Your task to perform on an android device: change the upload size in google photos Image 0: 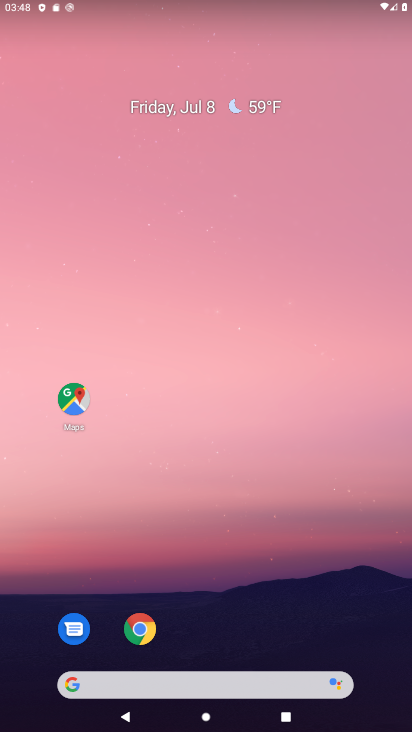
Step 0: press home button
Your task to perform on an android device: change the upload size in google photos Image 1: 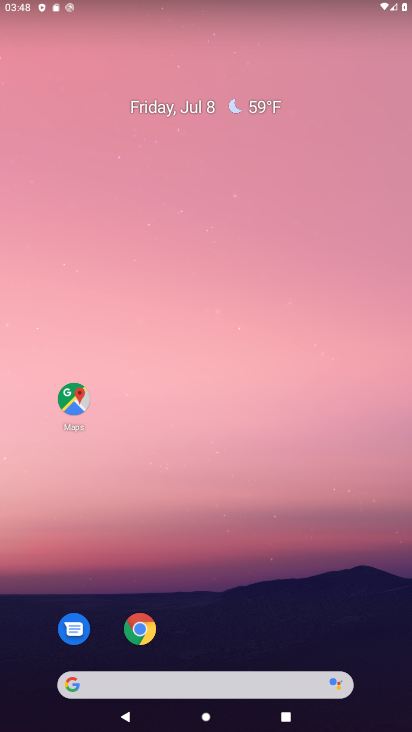
Step 1: drag from (228, 637) to (196, 312)
Your task to perform on an android device: change the upload size in google photos Image 2: 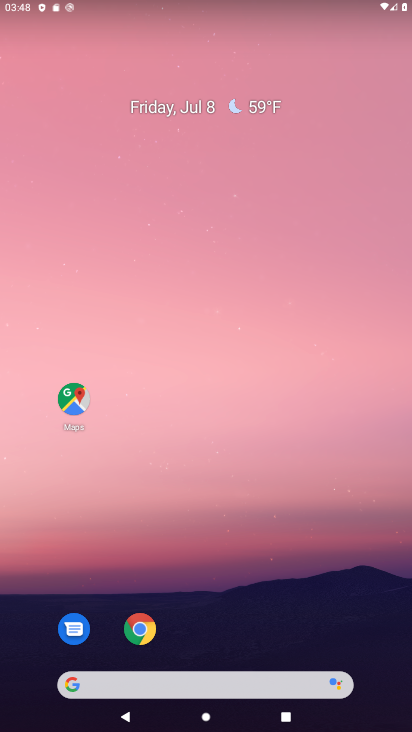
Step 2: drag from (218, 648) to (112, 16)
Your task to perform on an android device: change the upload size in google photos Image 3: 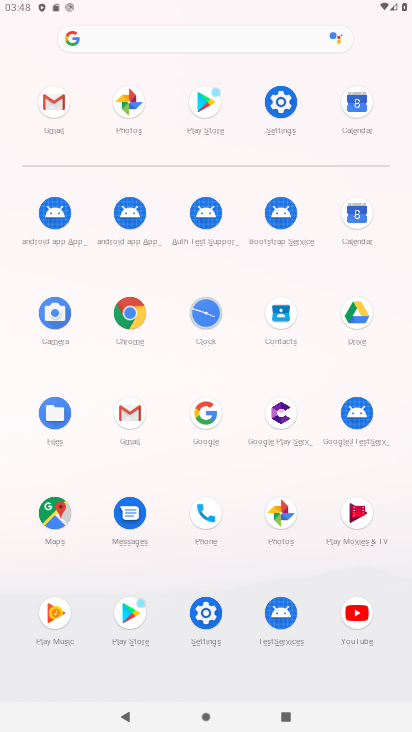
Step 3: click (278, 504)
Your task to perform on an android device: change the upload size in google photos Image 4: 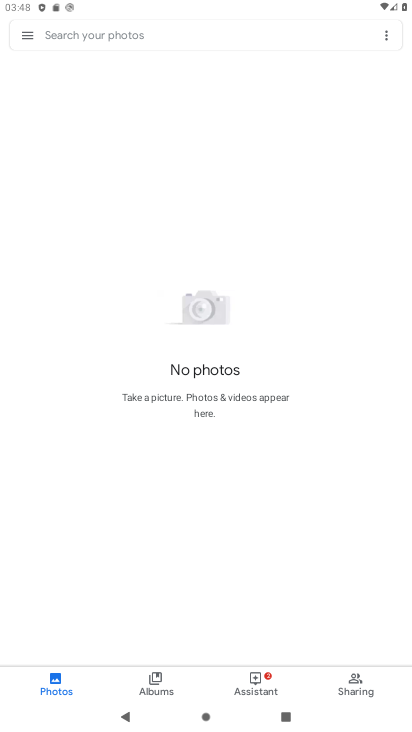
Step 4: click (32, 31)
Your task to perform on an android device: change the upload size in google photos Image 5: 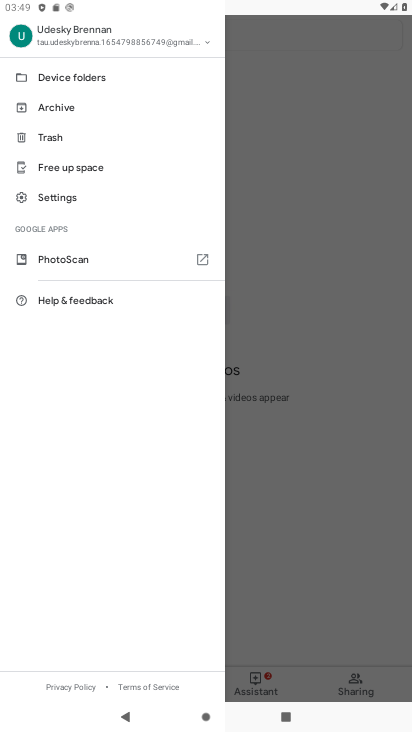
Step 5: click (65, 189)
Your task to perform on an android device: change the upload size in google photos Image 6: 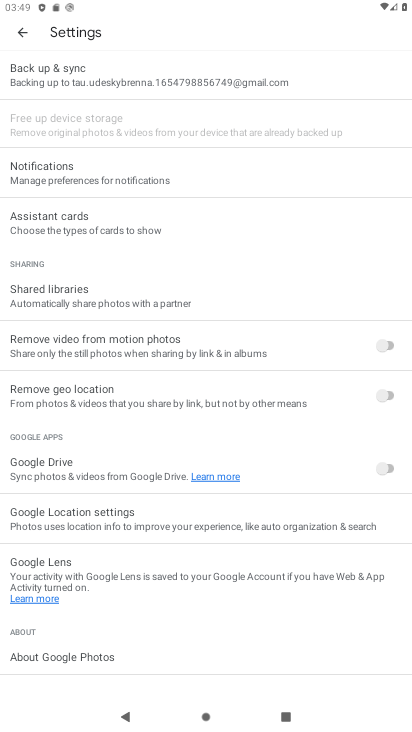
Step 6: drag from (110, 620) to (119, 165)
Your task to perform on an android device: change the upload size in google photos Image 7: 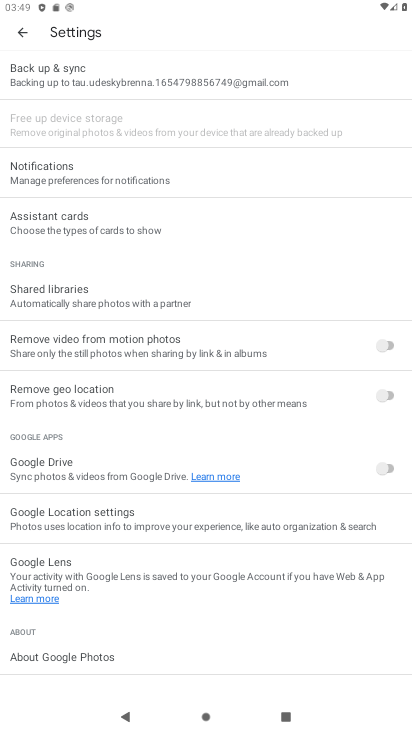
Step 7: click (31, 78)
Your task to perform on an android device: change the upload size in google photos Image 8: 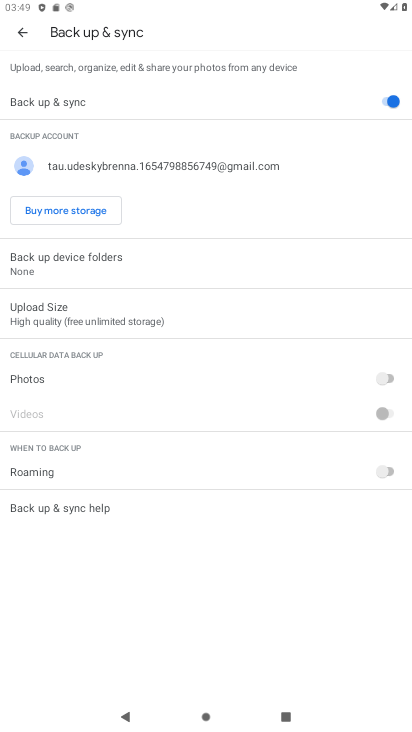
Step 8: click (50, 316)
Your task to perform on an android device: change the upload size in google photos Image 9: 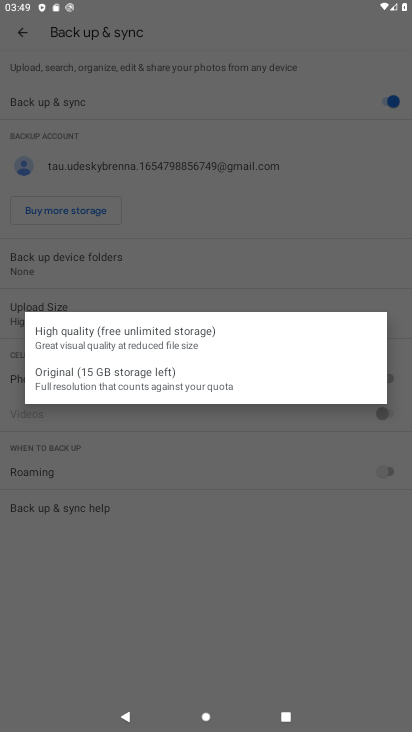
Step 9: click (110, 379)
Your task to perform on an android device: change the upload size in google photos Image 10: 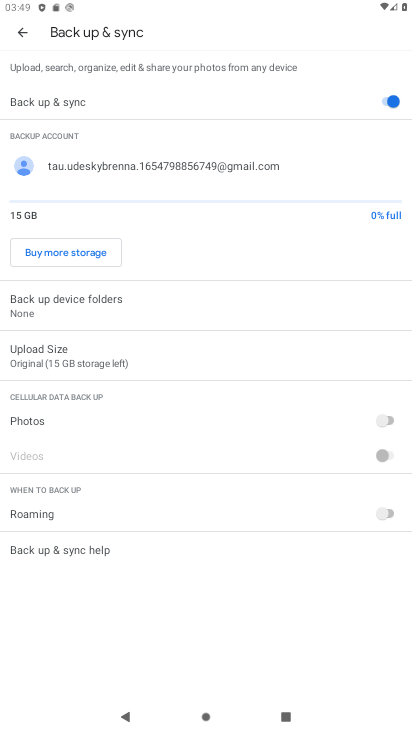
Step 10: task complete